Your task to perform on an android device: Find coffee shops on Maps Image 0: 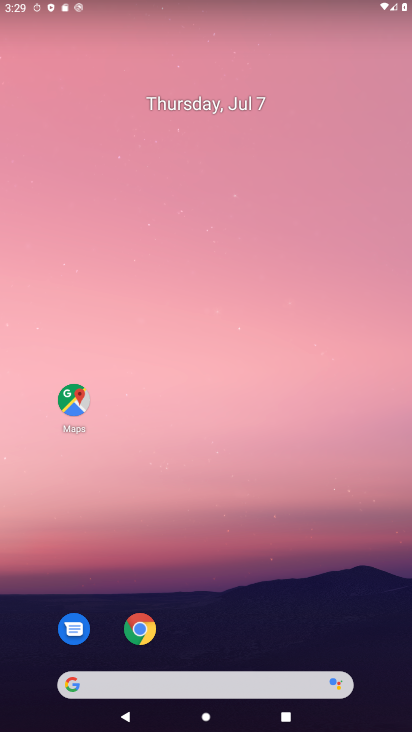
Step 0: drag from (220, 305) to (327, 62)
Your task to perform on an android device: Find coffee shops on Maps Image 1: 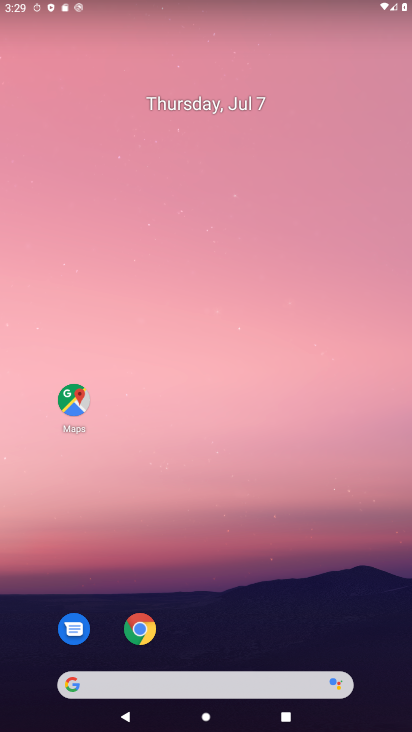
Step 1: drag from (220, 612) to (269, 154)
Your task to perform on an android device: Find coffee shops on Maps Image 2: 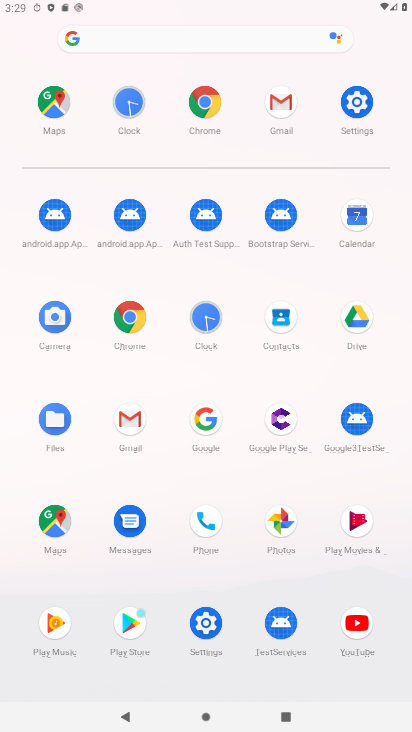
Step 2: click (53, 520)
Your task to perform on an android device: Find coffee shops on Maps Image 3: 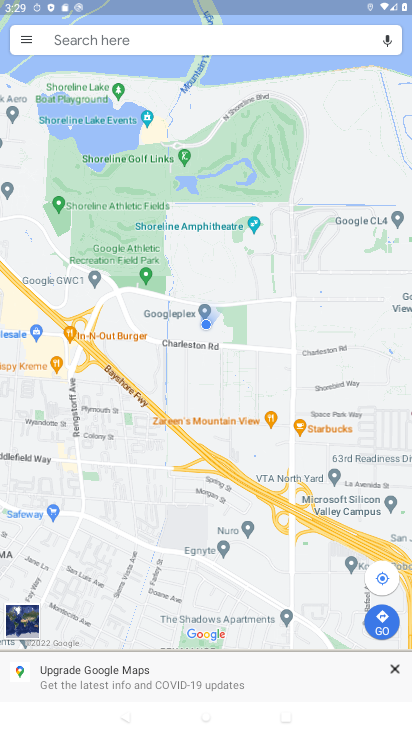
Step 3: click (221, 48)
Your task to perform on an android device: Find coffee shops on Maps Image 4: 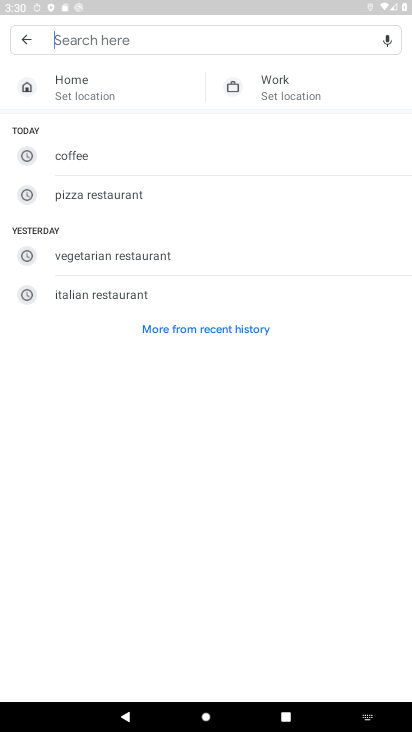
Step 4: type "coffee shops"
Your task to perform on an android device: Find coffee shops on Maps Image 5: 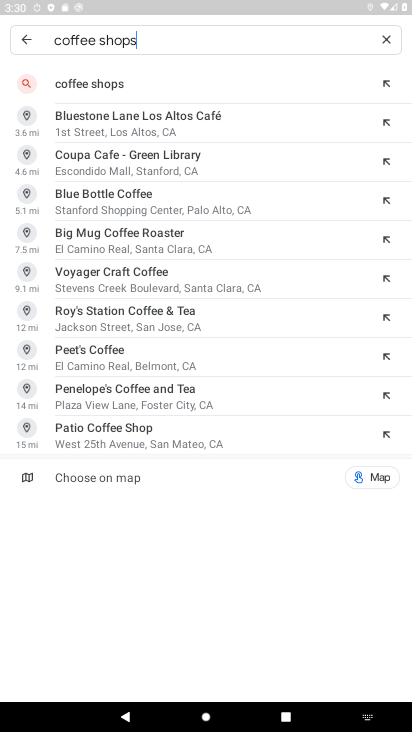
Step 5: click (95, 88)
Your task to perform on an android device: Find coffee shops on Maps Image 6: 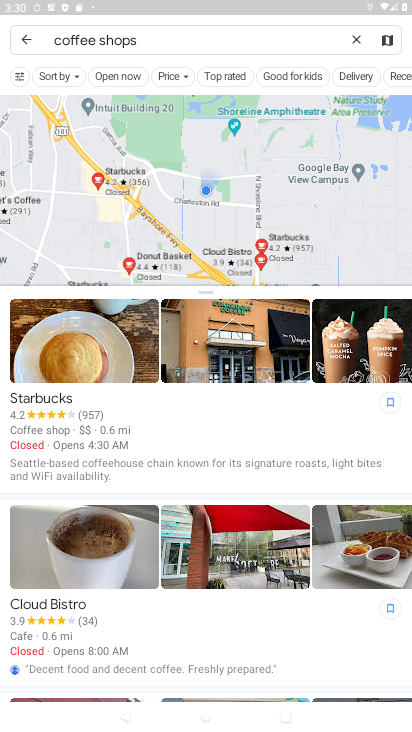
Step 6: click (96, 131)
Your task to perform on an android device: Find coffee shops on Maps Image 7: 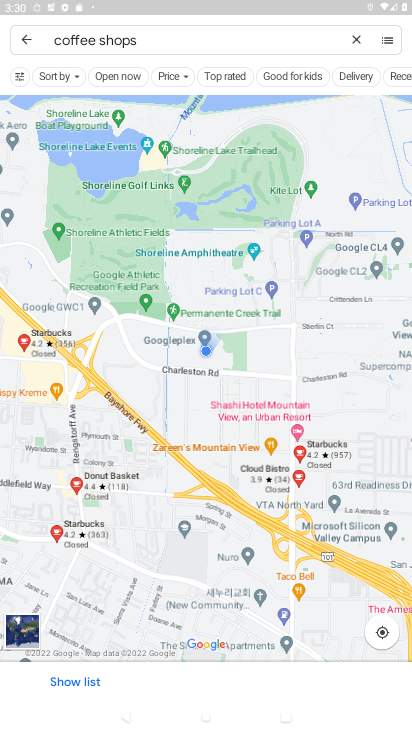
Step 7: task complete